Your task to perform on an android device: Open the web browser Image 0: 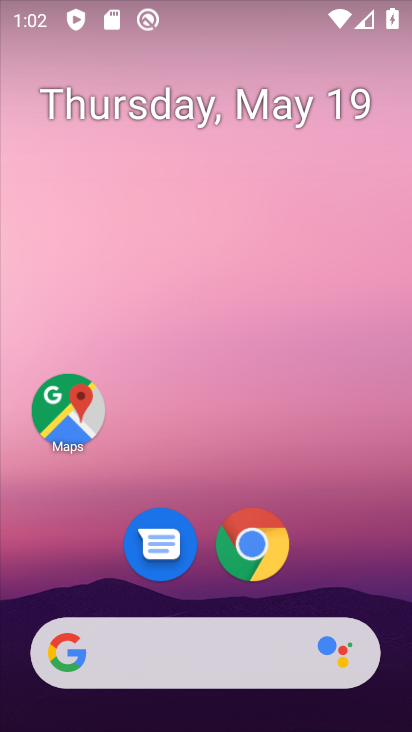
Step 0: drag from (280, 699) to (126, 239)
Your task to perform on an android device: Open the web browser Image 1: 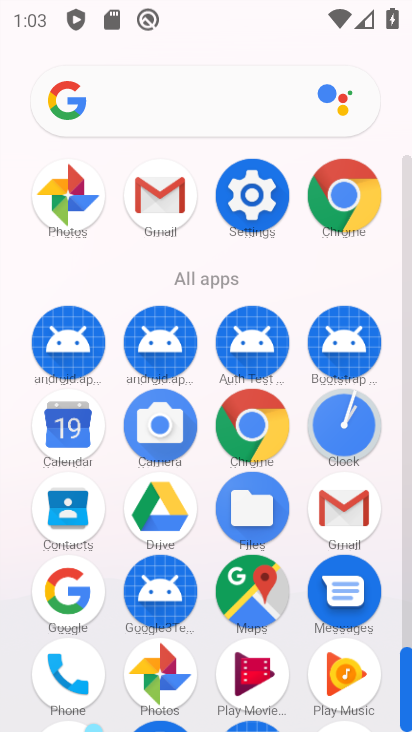
Step 1: click (334, 194)
Your task to perform on an android device: Open the web browser Image 2: 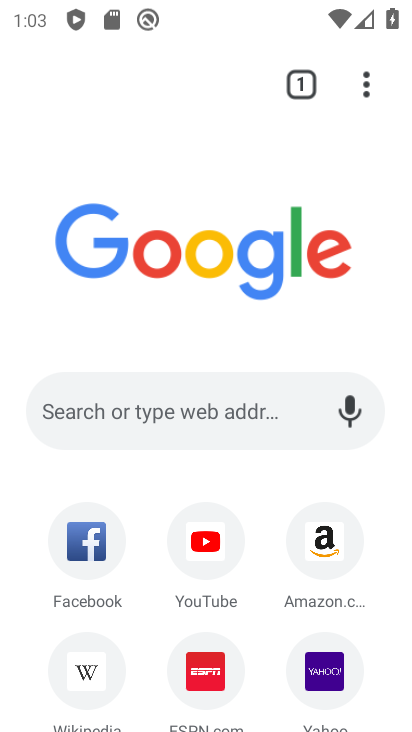
Step 2: click (138, 426)
Your task to perform on an android device: Open the web browser Image 3: 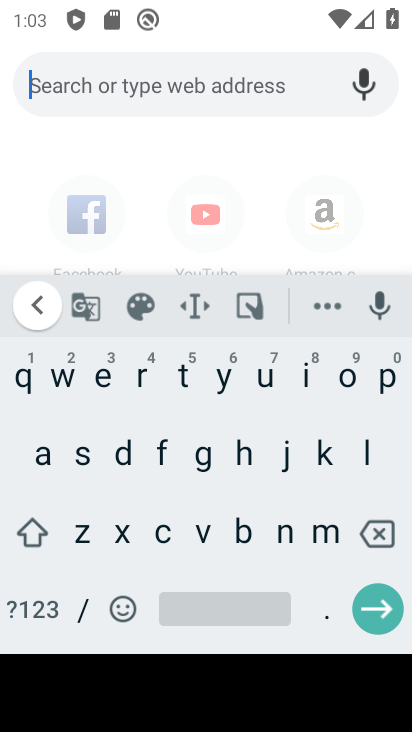
Step 3: task complete